Your task to perform on an android device: delete browsing data in the chrome app Image 0: 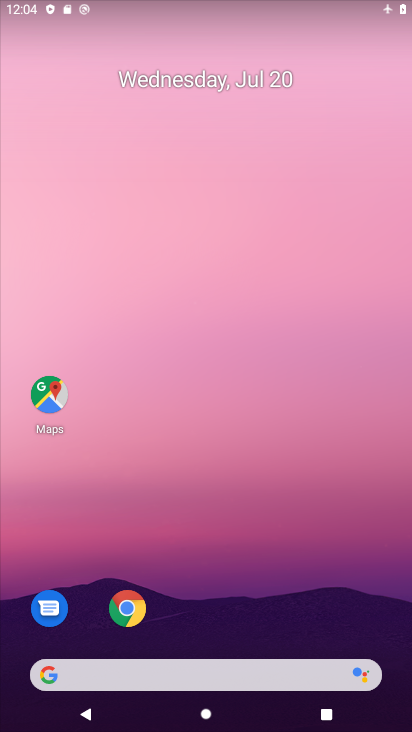
Step 0: press home button
Your task to perform on an android device: delete browsing data in the chrome app Image 1: 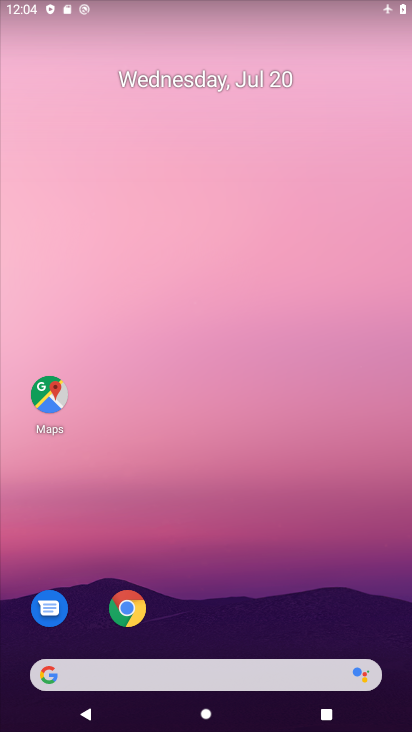
Step 1: click (126, 610)
Your task to perform on an android device: delete browsing data in the chrome app Image 2: 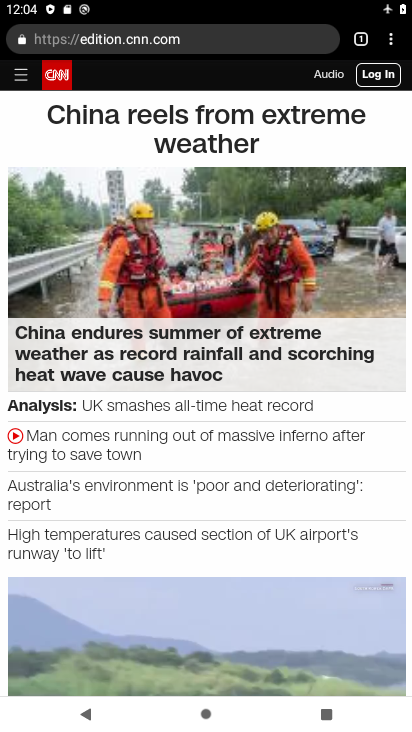
Step 2: click (393, 42)
Your task to perform on an android device: delete browsing data in the chrome app Image 3: 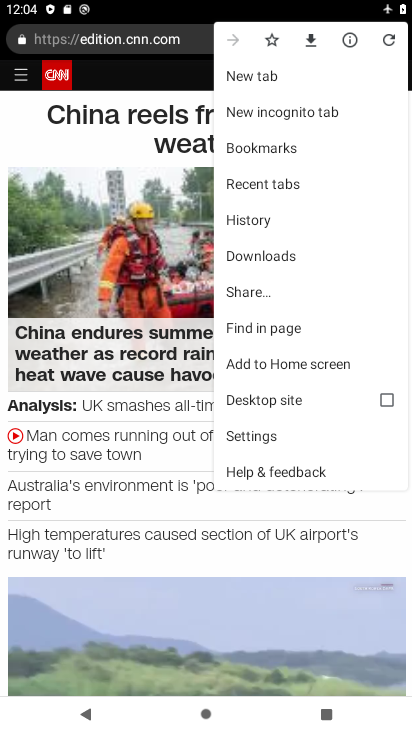
Step 3: click (261, 435)
Your task to perform on an android device: delete browsing data in the chrome app Image 4: 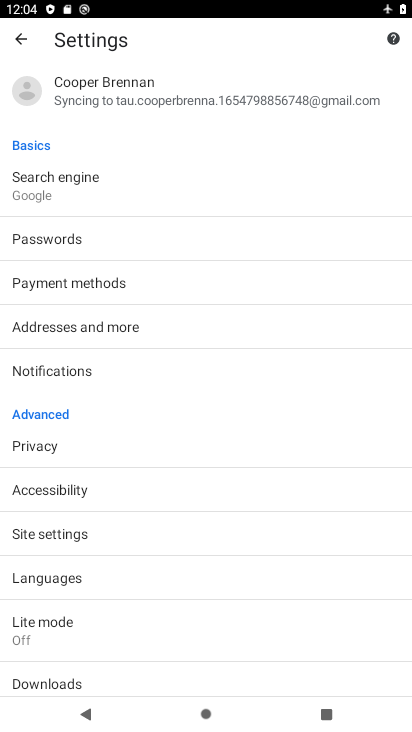
Step 4: click (43, 444)
Your task to perform on an android device: delete browsing data in the chrome app Image 5: 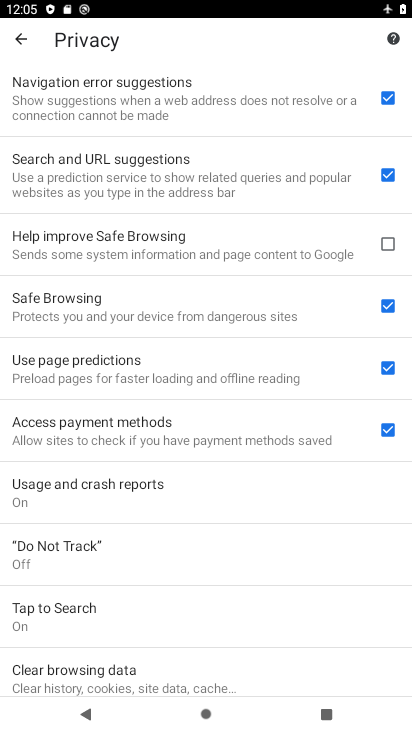
Step 5: click (65, 672)
Your task to perform on an android device: delete browsing data in the chrome app Image 6: 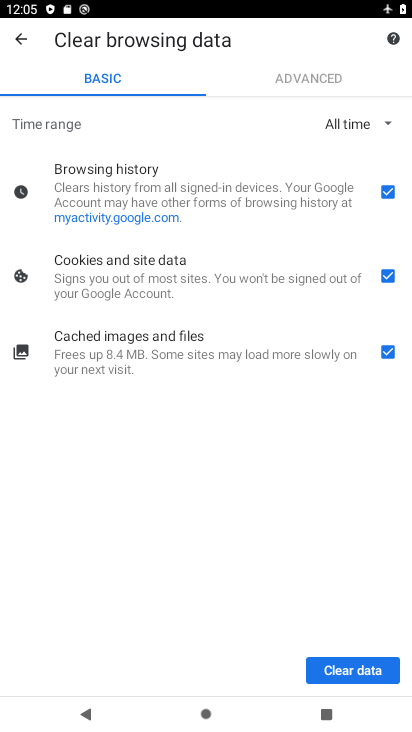
Step 6: click (357, 673)
Your task to perform on an android device: delete browsing data in the chrome app Image 7: 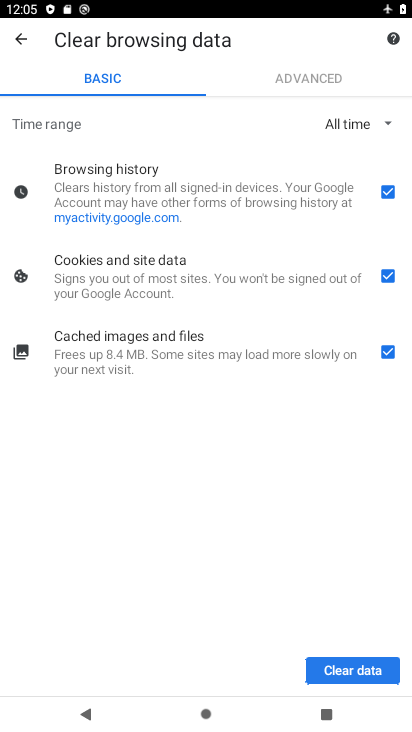
Step 7: click (344, 669)
Your task to perform on an android device: delete browsing data in the chrome app Image 8: 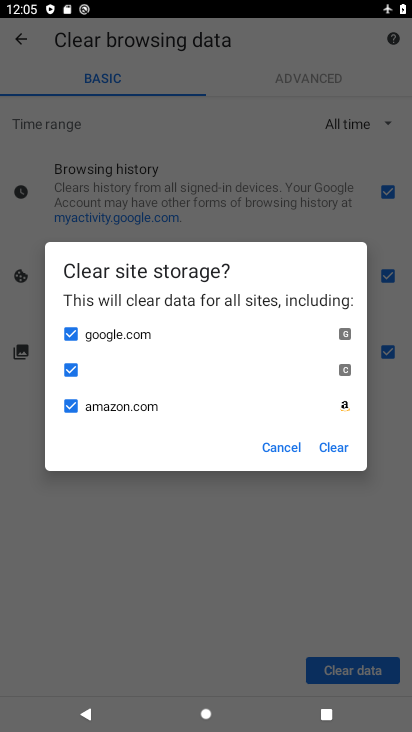
Step 8: click (336, 449)
Your task to perform on an android device: delete browsing data in the chrome app Image 9: 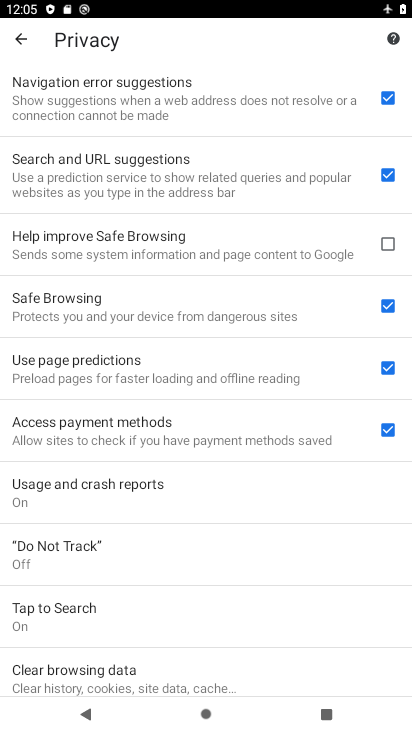
Step 9: task complete